Your task to perform on an android device: Go to internet settings Image 0: 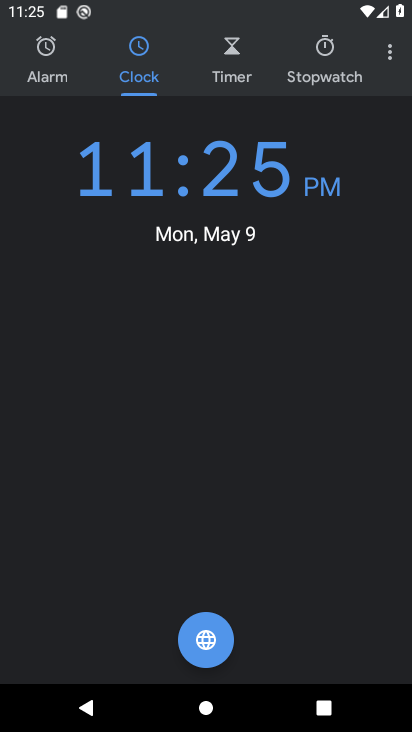
Step 0: press home button
Your task to perform on an android device: Go to internet settings Image 1: 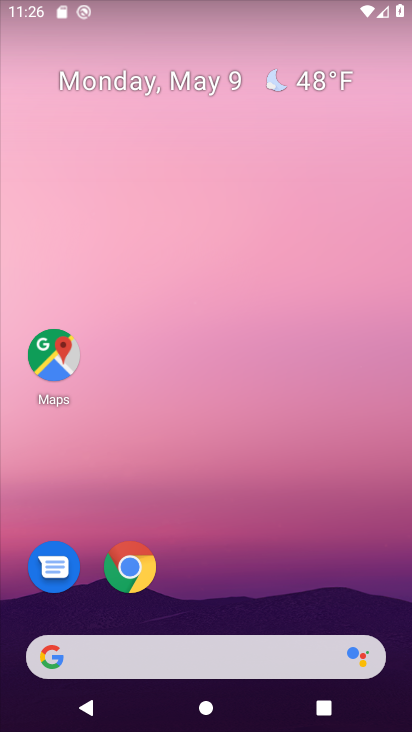
Step 1: drag from (240, 565) to (300, 18)
Your task to perform on an android device: Go to internet settings Image 2: 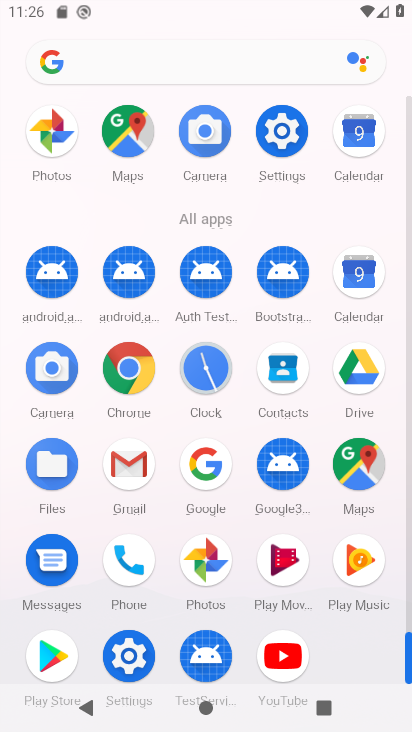
Step 2: click (278, 162)
Your task to perform on an android device: Go to internet settings Image 3: 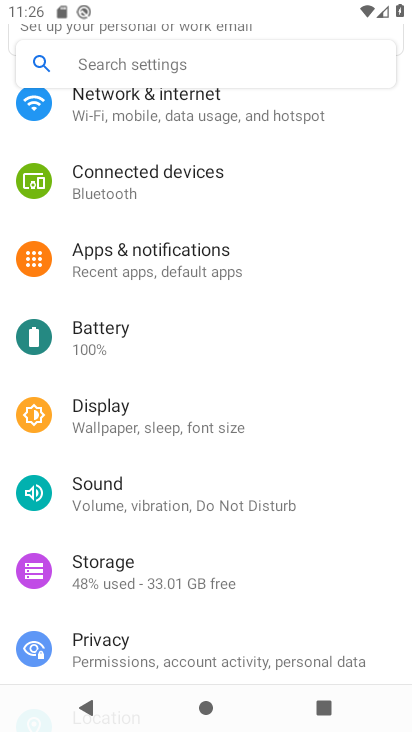
Step 3: drag from (202, 203) to (202, 676)
Your task to perform on an android device: Go to internet settings Image 4: 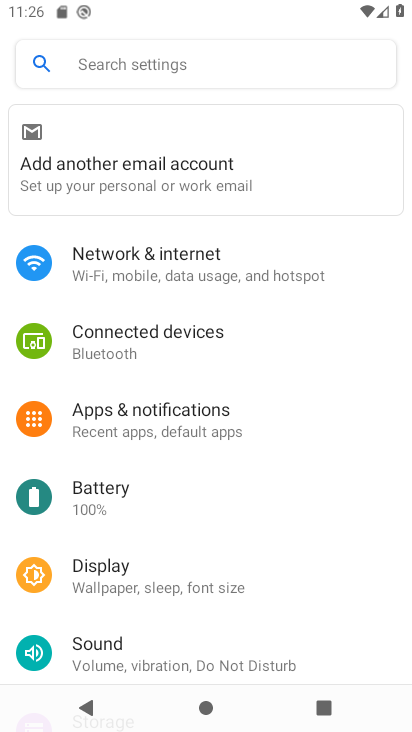
Step 4: click (204, 276)
Your task to perform on an android device: Go to internet settings Image 5: 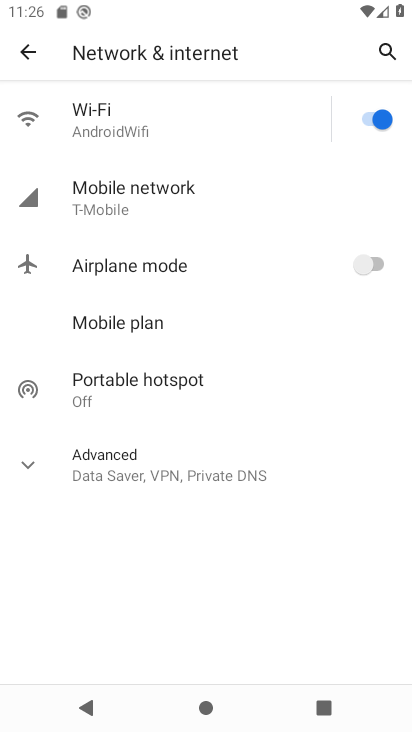
Step 5: task complete